Your task to perform on an android device: Is it going to rain today? Image 0: 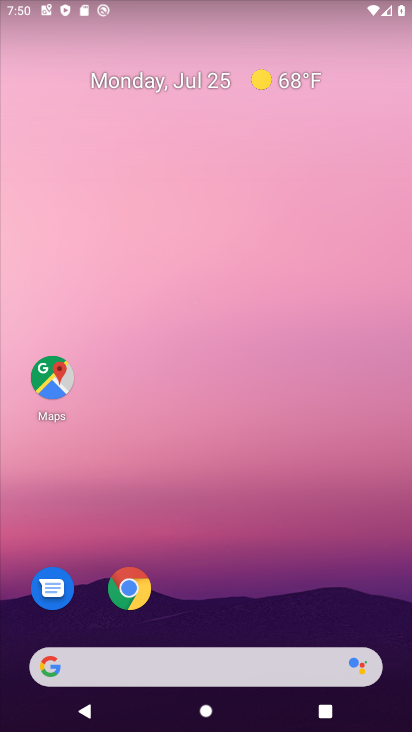
Step 0: drag from (337, 56) to (323, 139)
Your task to perform on an android device: Is it going to rain today? Image 1: 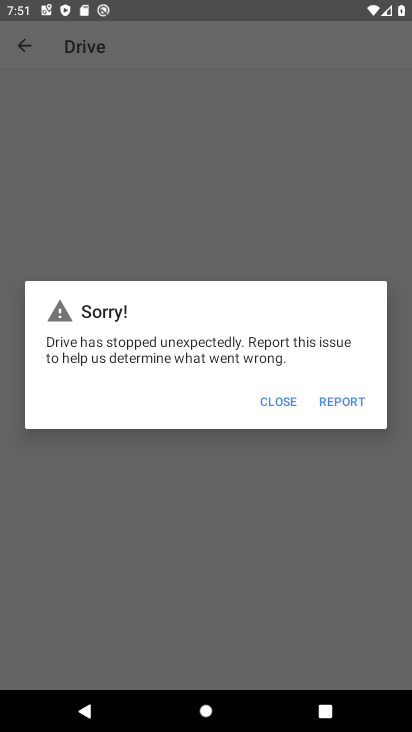
Step 1: press home button
Your task to perform on an android device: Is it going to rain today? Image 2: 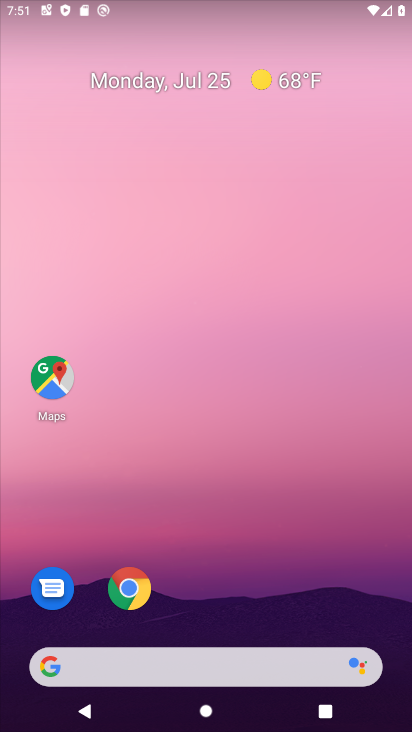
Step 2: click (223, 669)
Your task to perform on an android device: Is it going to rain today? Image 3: 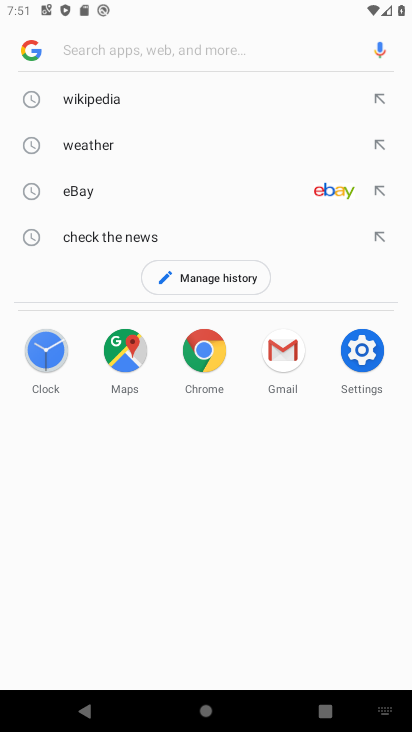
Step 3: click (114, 150)
Your task to perform on an android device: Is it going to rain today? Image 4: 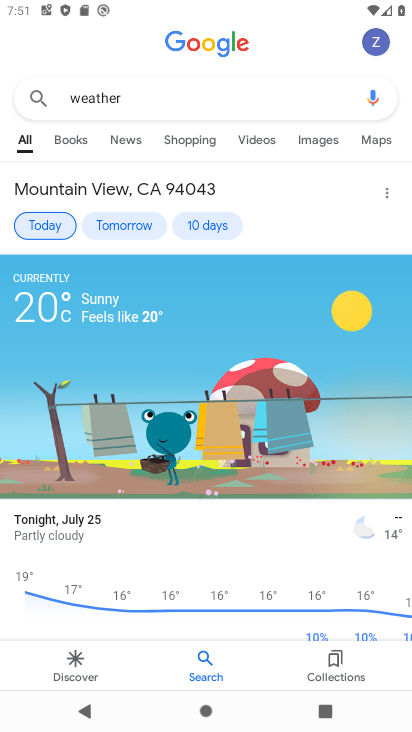
Step 4: task complete